Your task to perform on an android device: remove spam from my inbox in the gmail app Image 0: 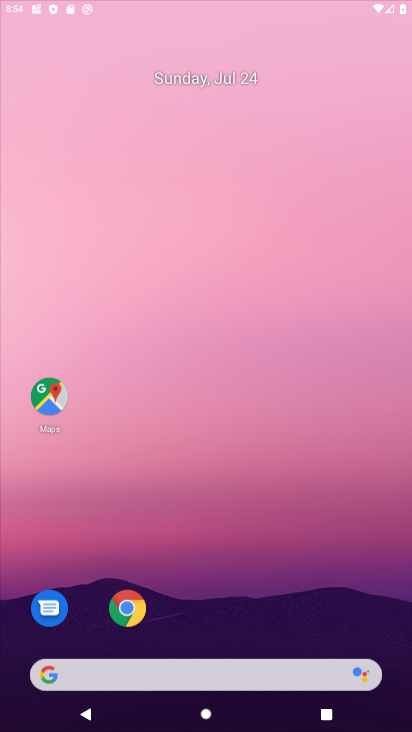
Step 0: drag from (220, 612) to (213, 5)
Your task to perform on an android device: remove spam from my inbox in the gmail app Image 1: 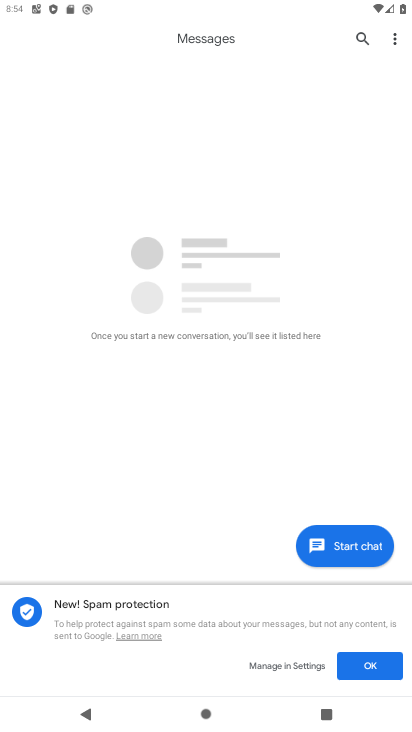
Step 1: press home button
Your task to perform on an android device: remove spam from my inbox in the gmail app Image 2: 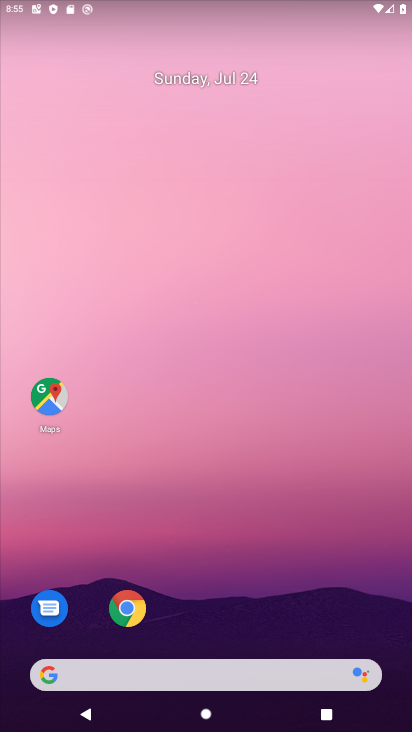
Step 2: drag from (277, 605) to (287, 2)
Your task to perform on an android device: remove spam from my inbox in the gmail app Image 3: 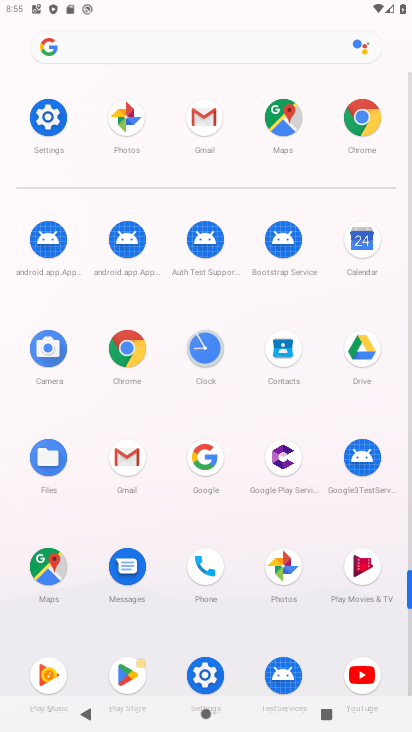
Step 3: click (138, 476)
Your task to perform on an android device: remove spam from my inbox in the gmail app Image 4: 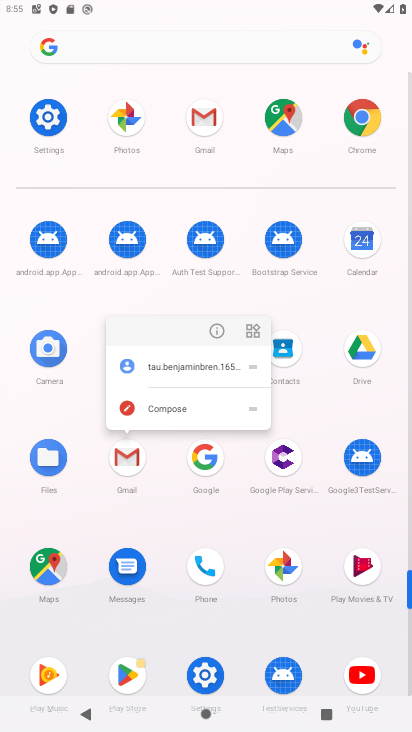
Step 4: click (126, 472)
Your task to perform on an android device: remove spam from my inbox in the gmail app Image 5: 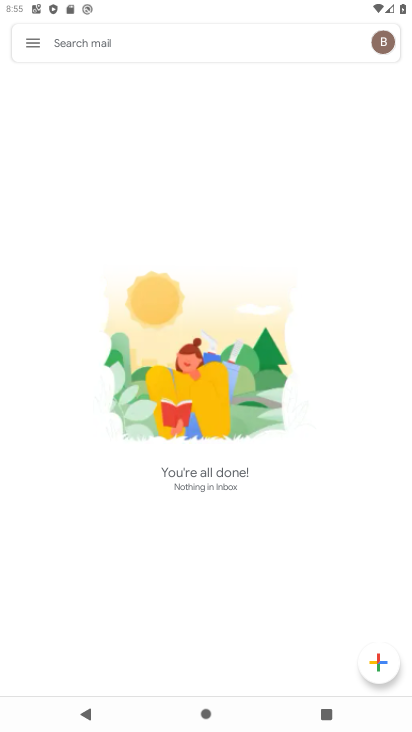
Step 5: click (32, 44)
Your task to perform on an android device: remove spam from my inbox in the gmail app Image 6: 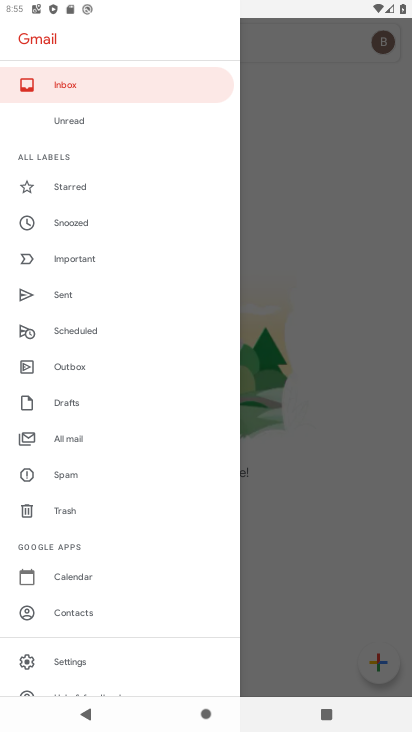
Step 6: click (76, 473)
Your task to perform on an android device: remove spam from my inbox in the gmail app Image 7: 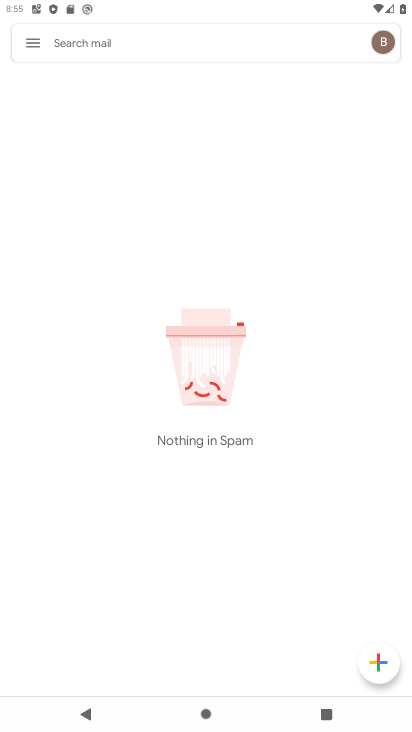
Step 7: task complete